Your task to perform on an android device: turn on bluetooth scan Image 0: 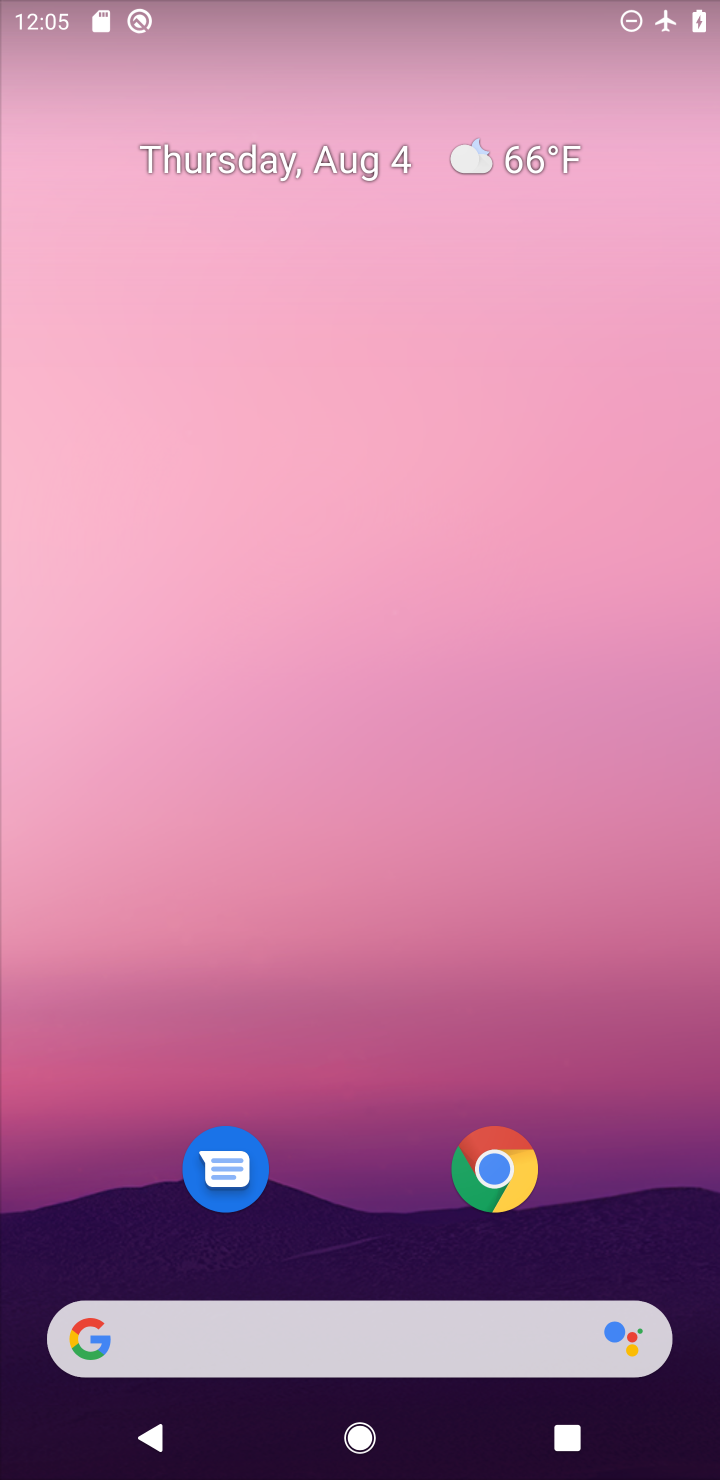
Step 0: press home button
Your task to perform on an android device: turn on bluetooth scan Image 1: 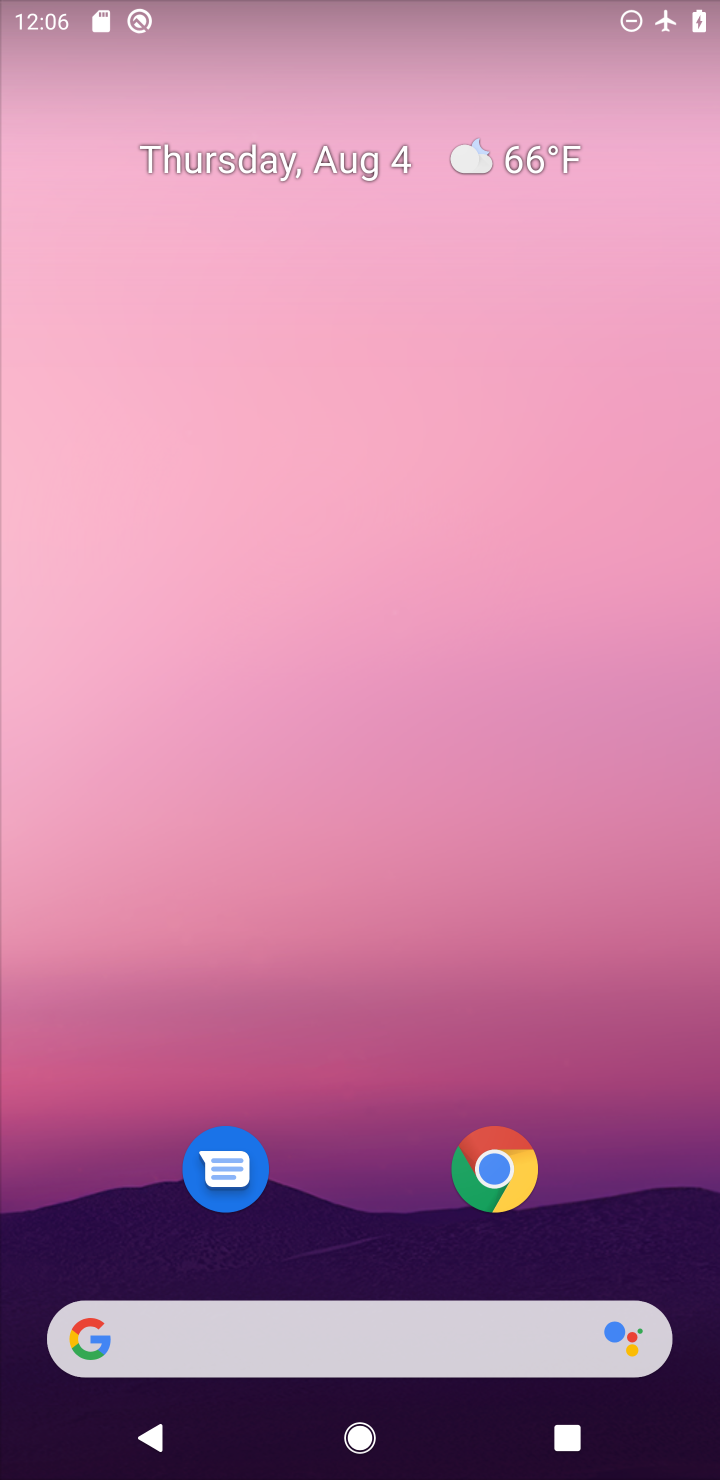
Step 1: drag from (345, 1199) to (479, 39)
Your task to perform on an android device: turn on bluetooth scan Image 2: 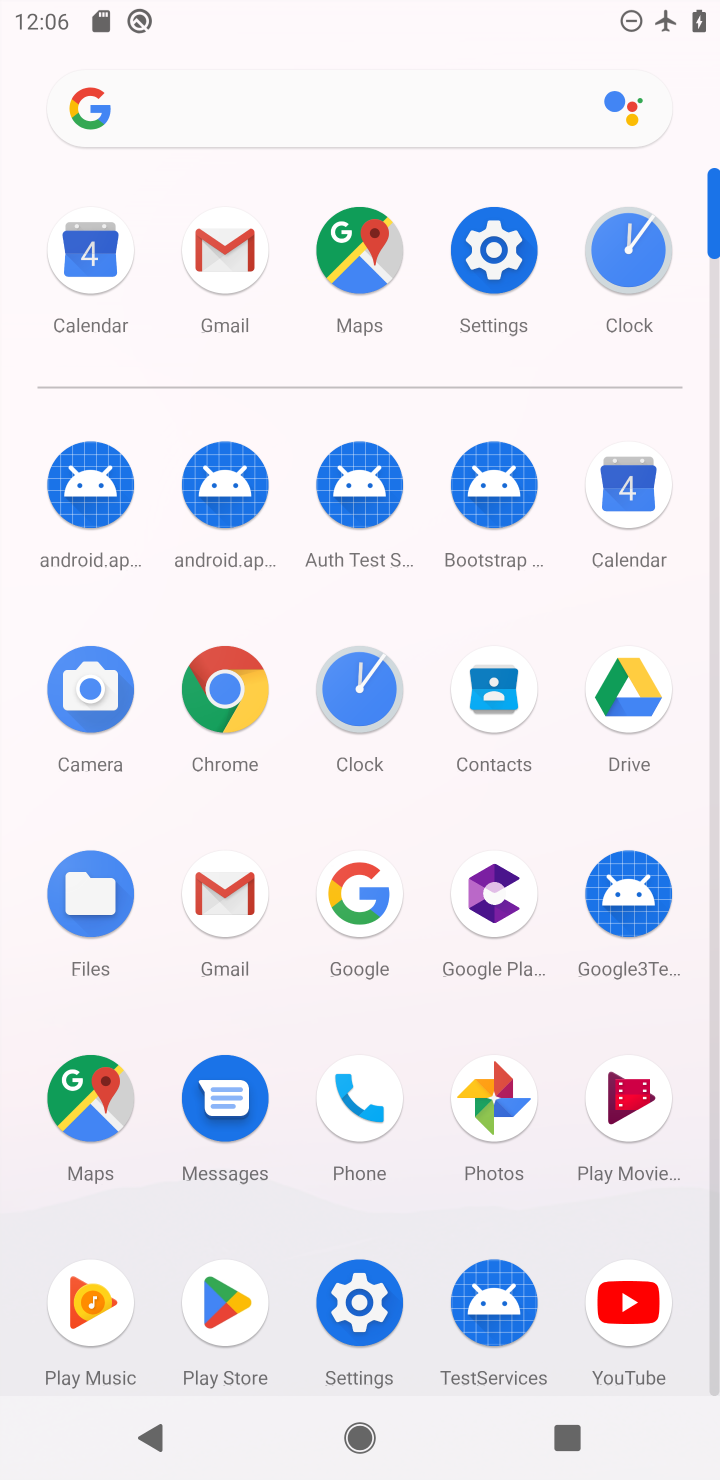
Step 2: click (514, 255)
Your task to perform on an android device: turn on bluetooth scan Image 3: 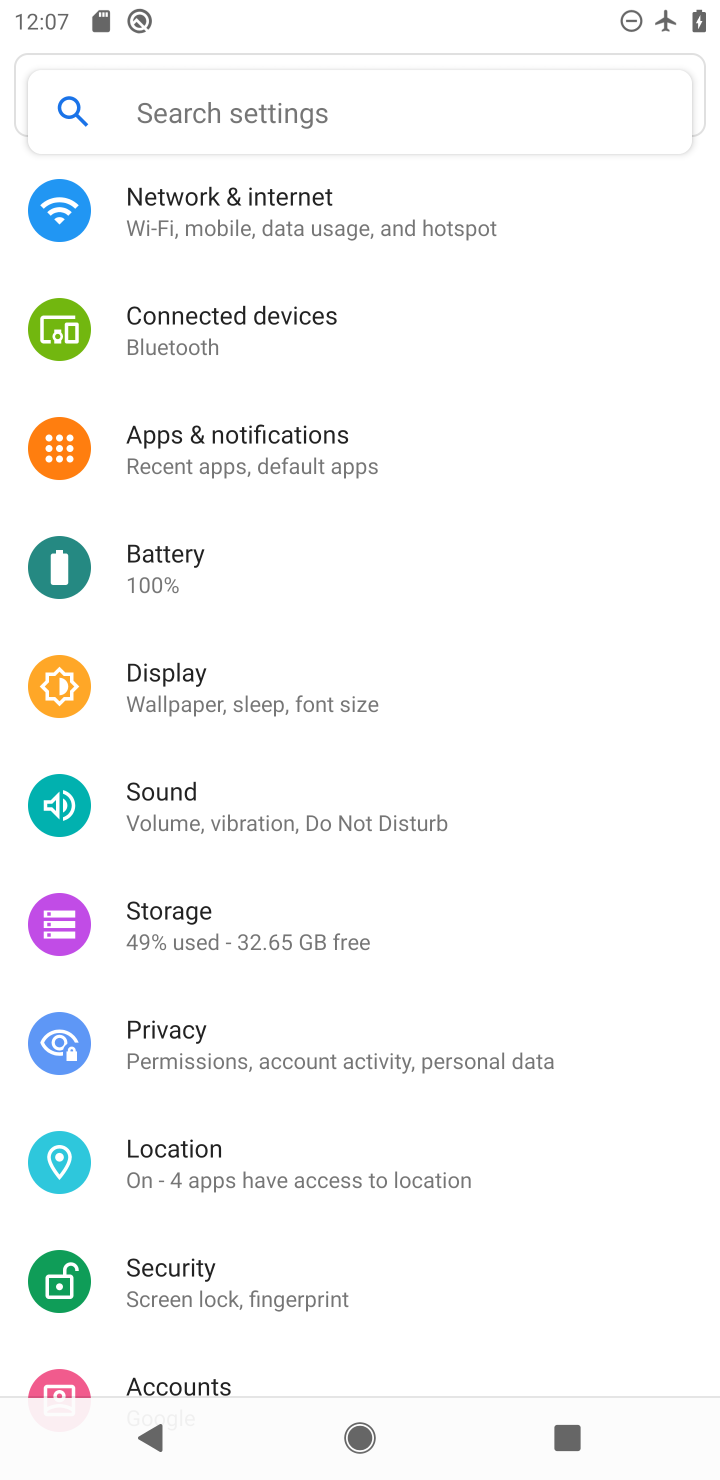
Step 3: click (240, 1165)
Your task to perform on an android device: turn on bluetooth scan Image 4: 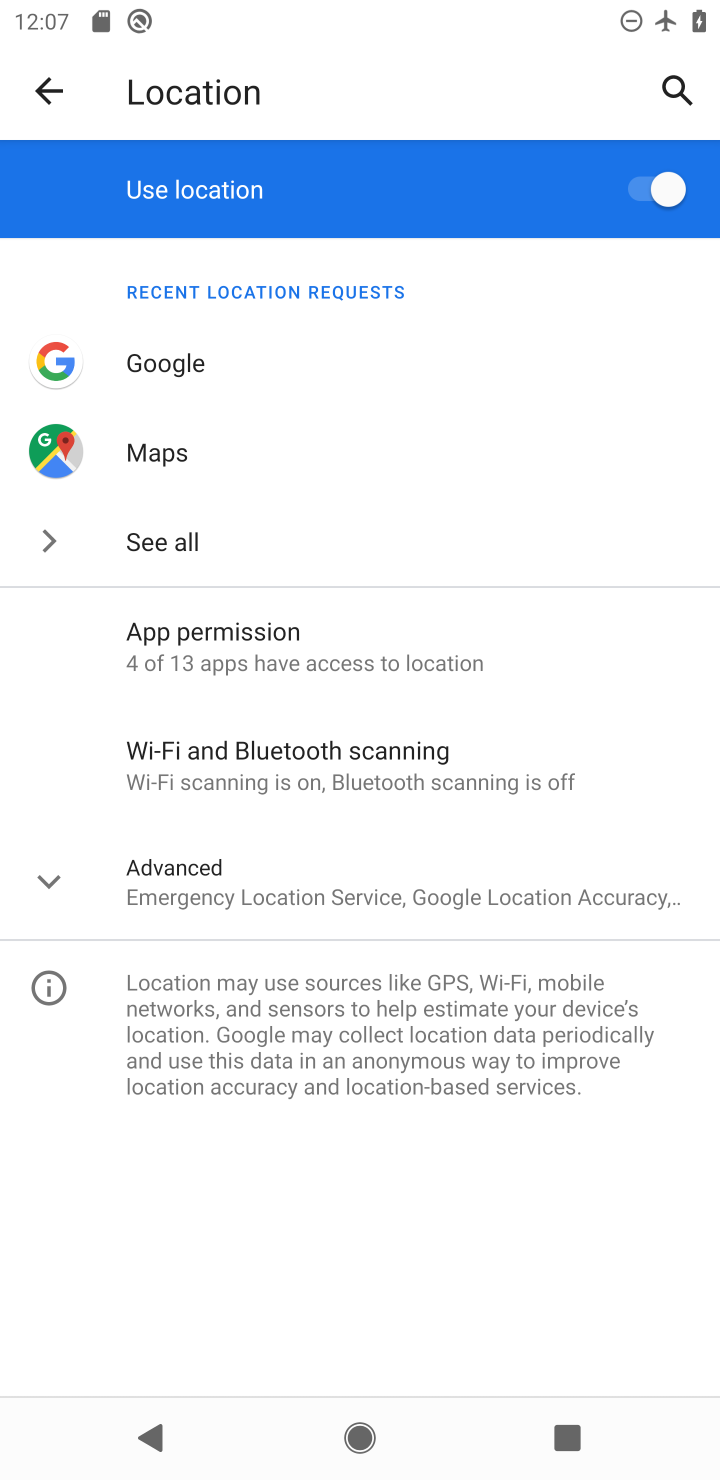
Step 4: click (273, 760)
Your task to perform on an android device: turn on bluetooth scan Image 5: 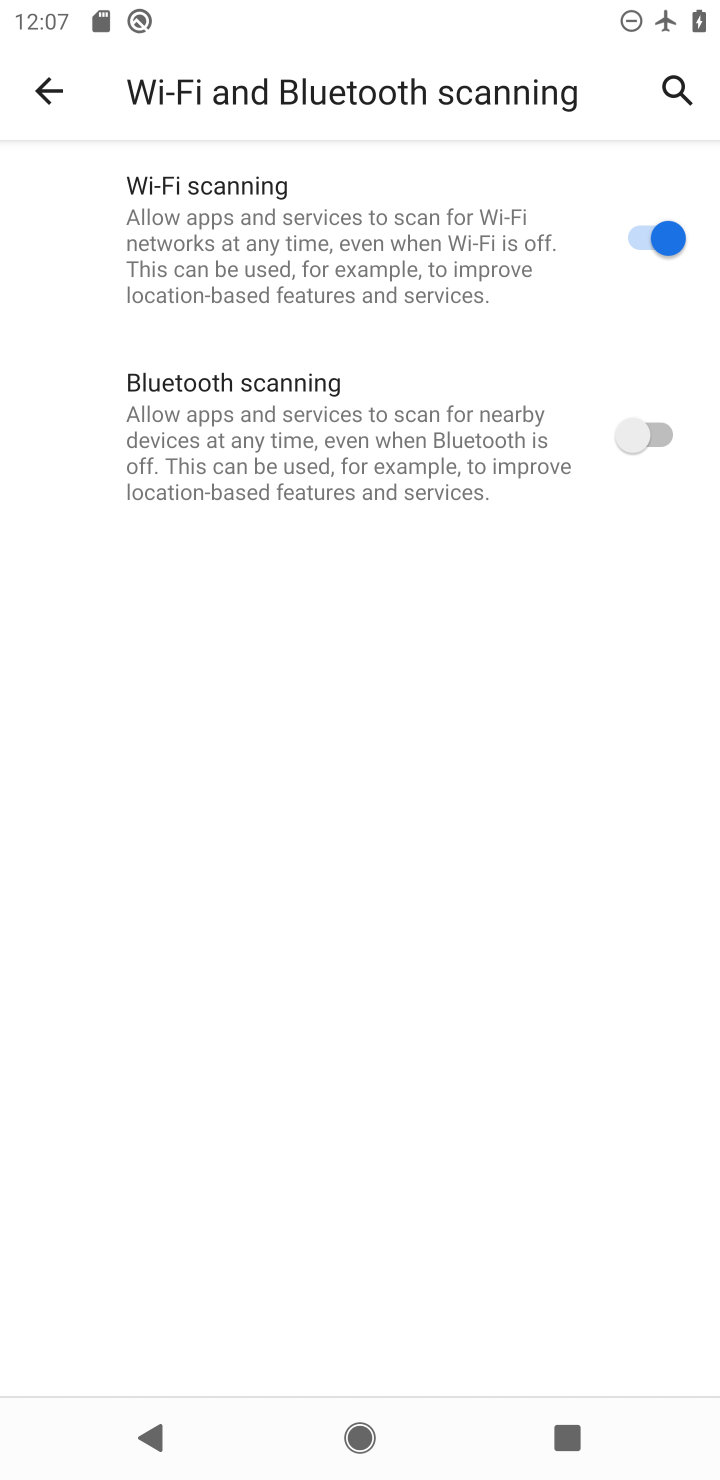
Step 5: click (634, 456)
Your task to perform on an android device: turn on bluetooth scan Image 6: 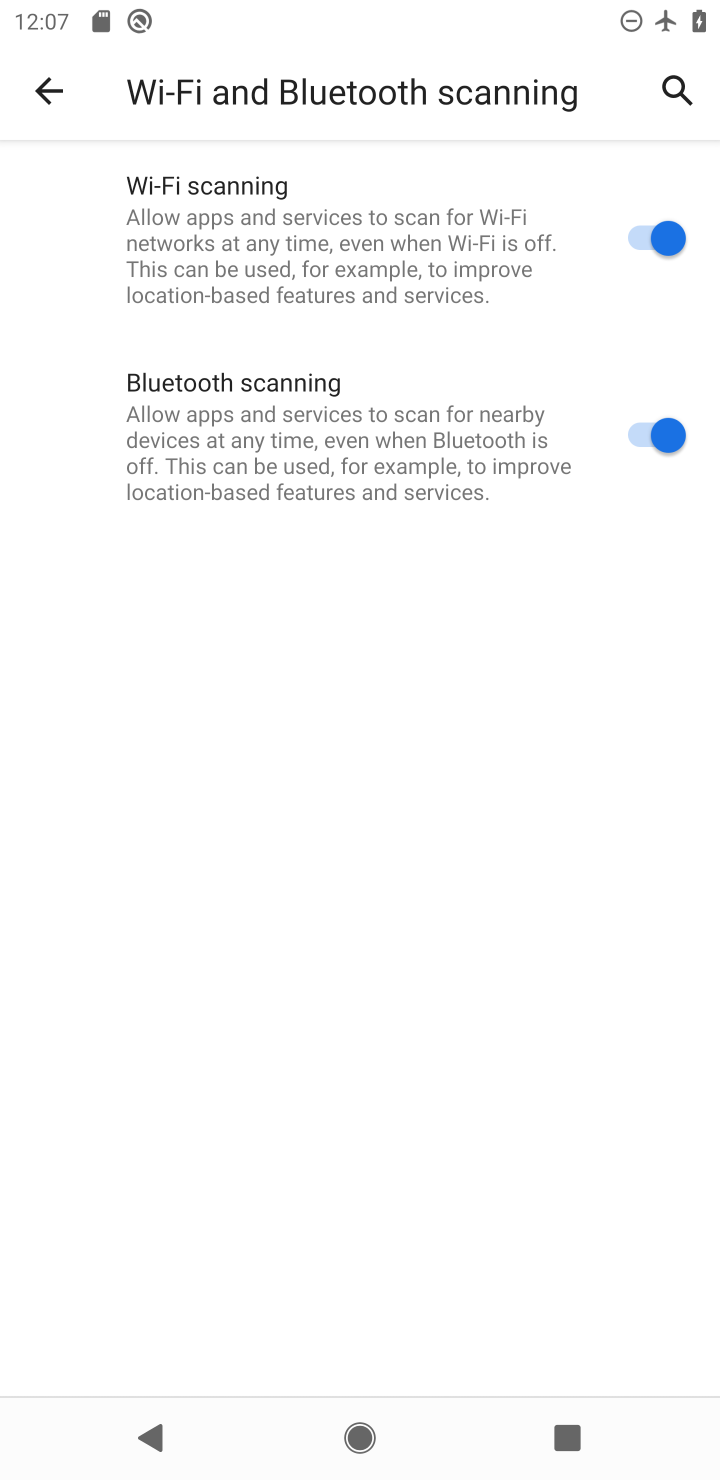
Step 6: task complete